Your task to perform on an android device: What's on my calendar today? Image 0: 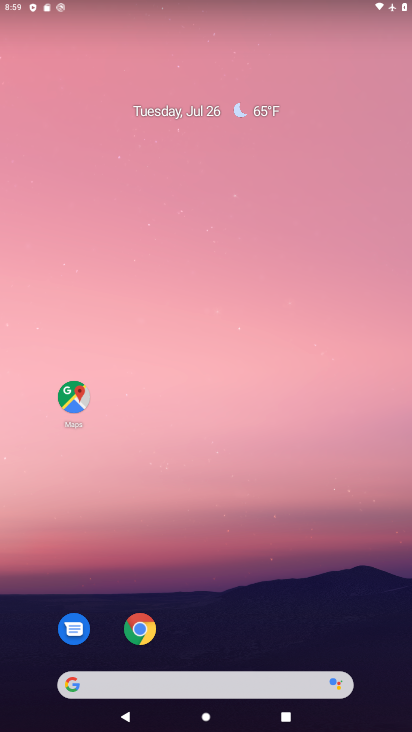
Step 0: drag from (318, 587) to (265, 23)
Your task to perform on an android device: What's on my calendar today? Image 1: 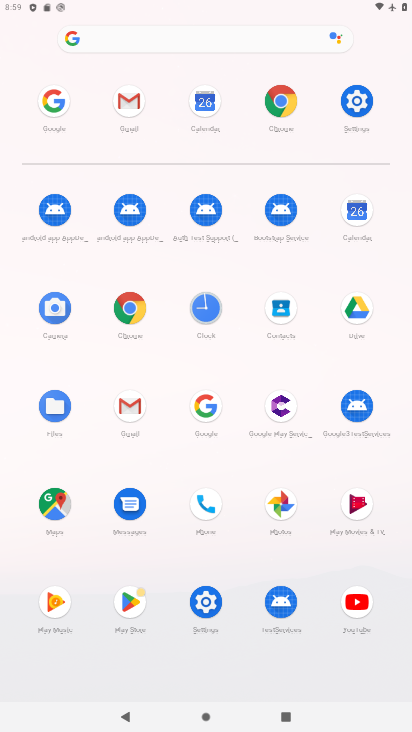
Step 1: click (355, 214)
Your task to perform on an android device: What's on my calendar today? Image 2: 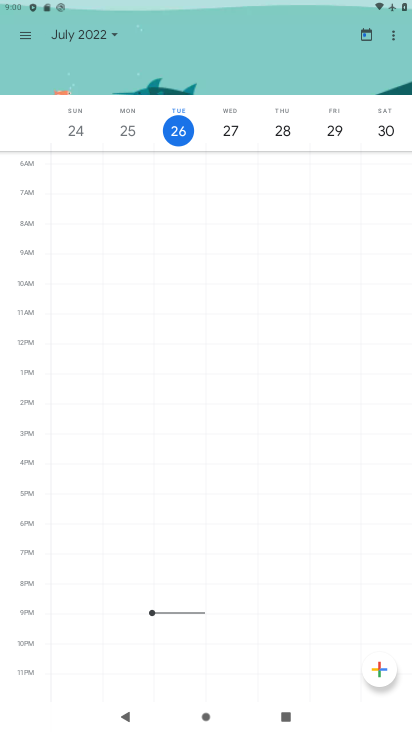
Step 2: click (172, 121)
Your task to perform on an android device: What's on my calendar today? Image 3: 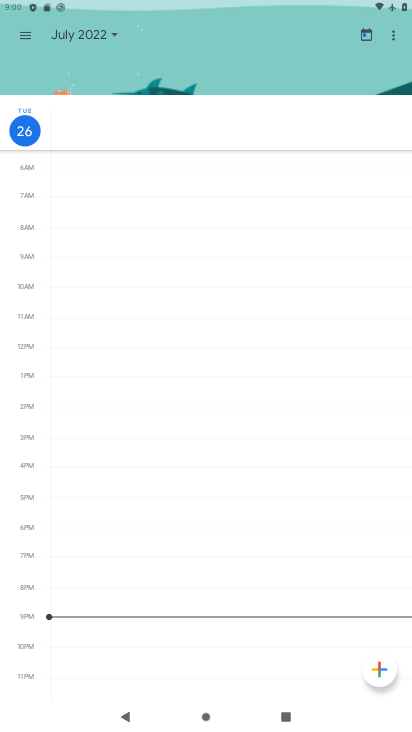
Step 3: task complete